Your task to perform on an android device: empty trash in the gmail app Image 0: 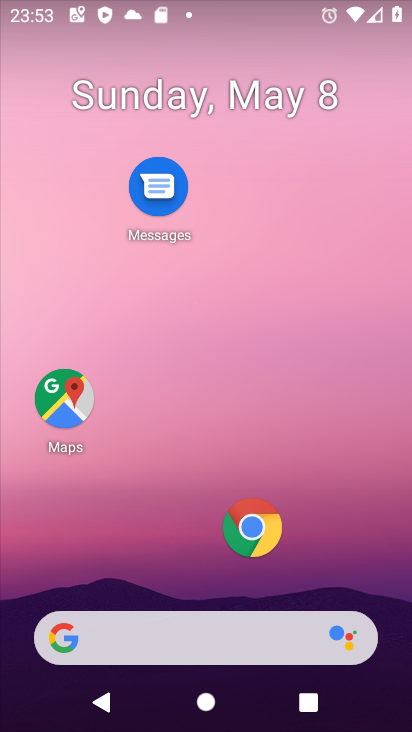
Step 0: drag from (180, 557) to (231, 26)
Your task to perform on an android device: empty trash in the gmail app Image 1: 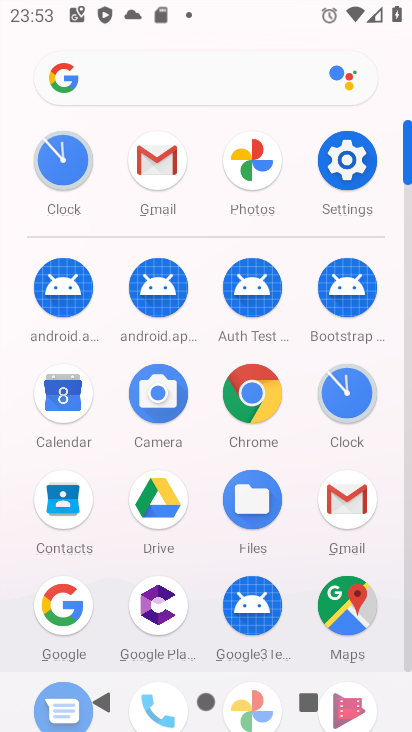
Step 1: click (163, 160)
Your task to perform on an android device: empty trash in the gmail app Image 2: 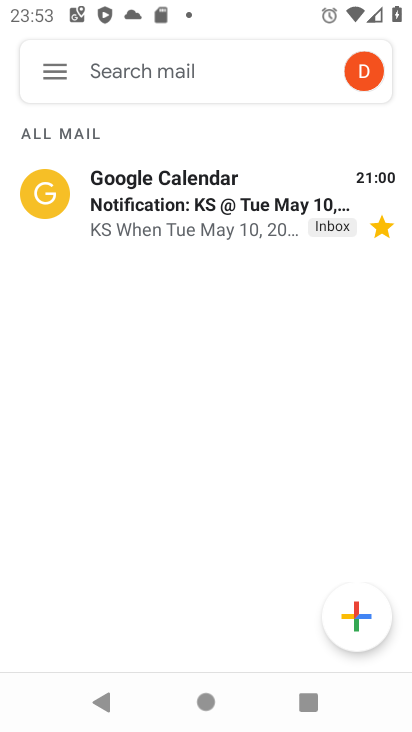
Step 2: click (61, 71)
Your task to perform on an android device: empty trash in the gmail app Image 3: 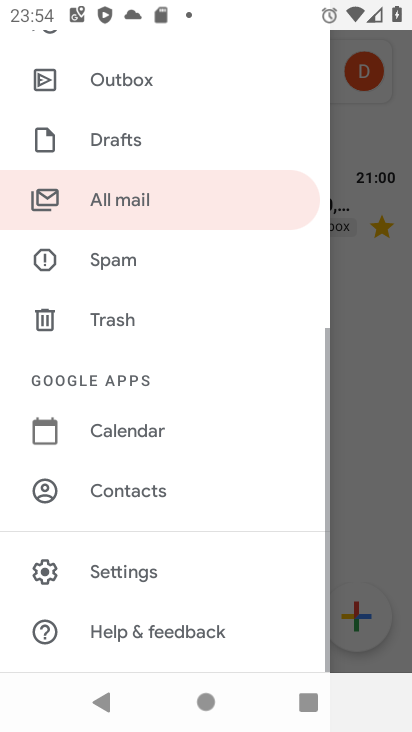
Step 3: drag from (194, 585) to (218, 257)
Your task to perform on an android device: empty trash in the gmail app Image 4: 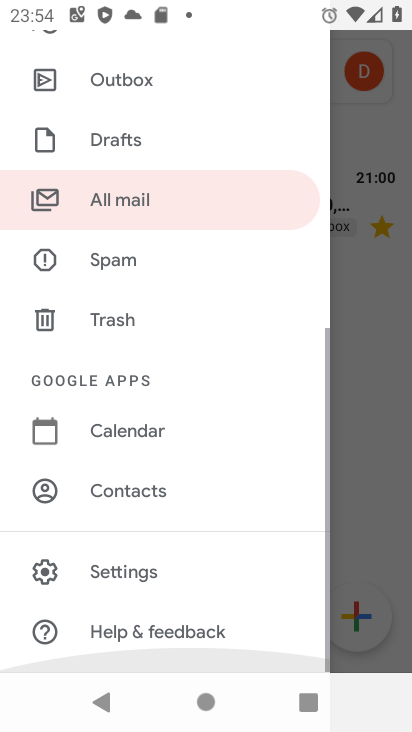
Step 4: click (110, 329)
Your task to perform on an android device: empty trash in the gmail app Image 5: 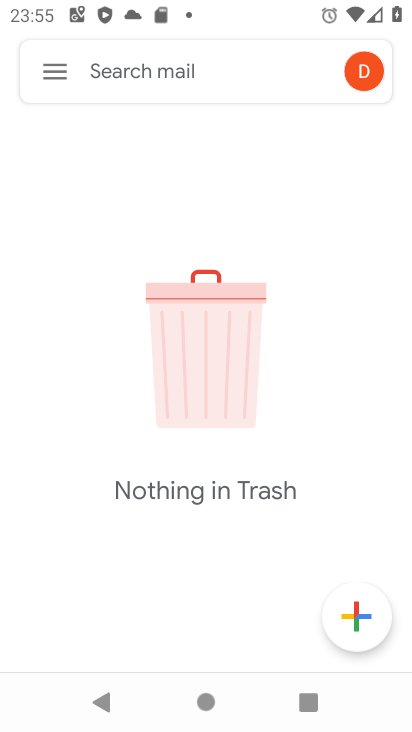
Step 5: task complete